Your task to perform on an android device: change the clock style Image 0: 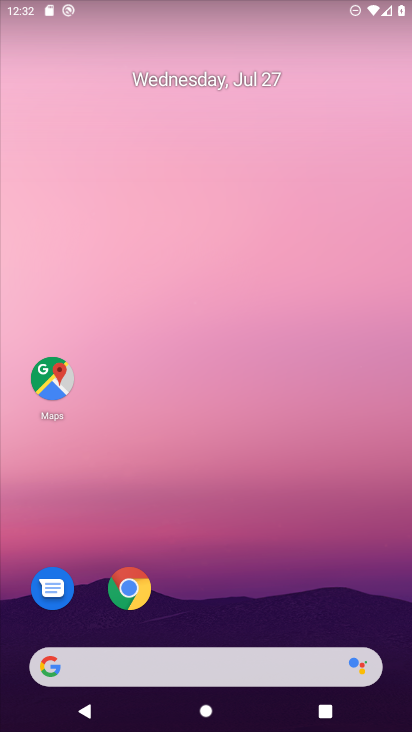
Step 0: drag from (96, 594) to (153, 440)
Your task to perform on an android device: change the clock style Image 1: 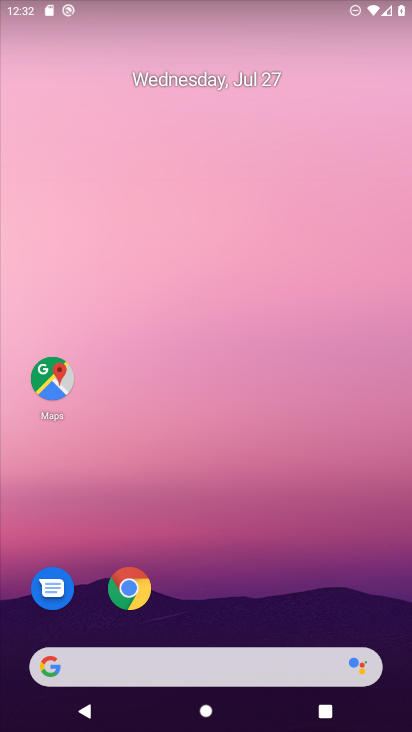
Step 1: drag from (42, 691) to (216, 115)
Your task to perform on an android device: change the clock style Image 2: 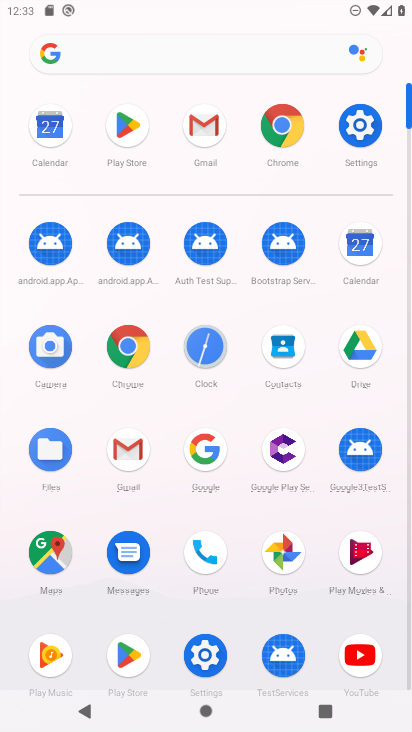
Step 2: click (203, 363)
Your task to perform on an android device: change the clock style Image 3: 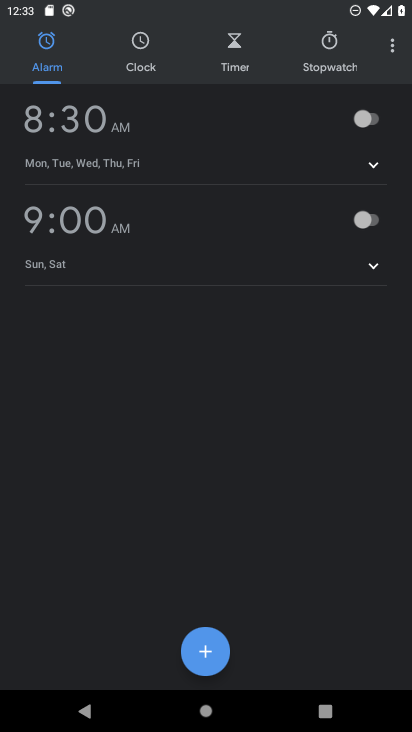
Step 3: click (144, 54)
Your task to perform on an android device: change the clock style Image 4: 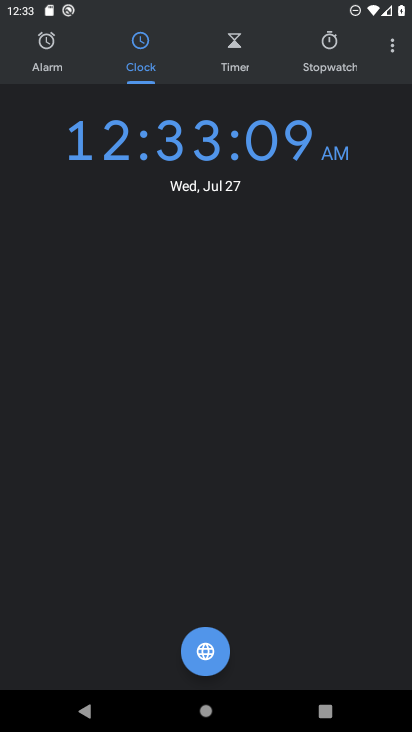
Step 4: click (391, 44)
Your task to perform on an android device: change the clock style Image 5: 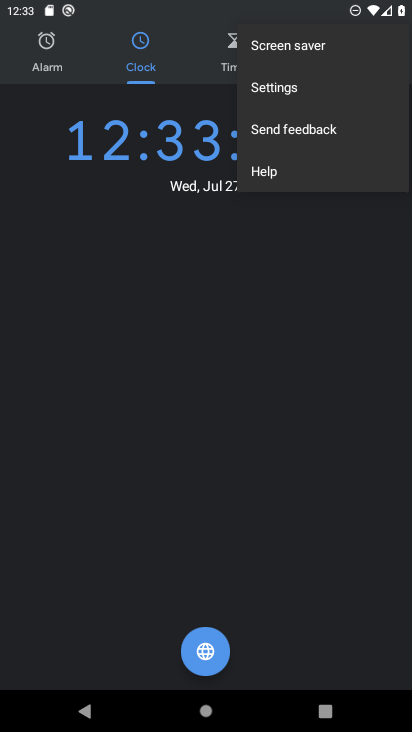
Step 5: click (295, 94)
Your task to perform on an android device: change the clock style Image 6: 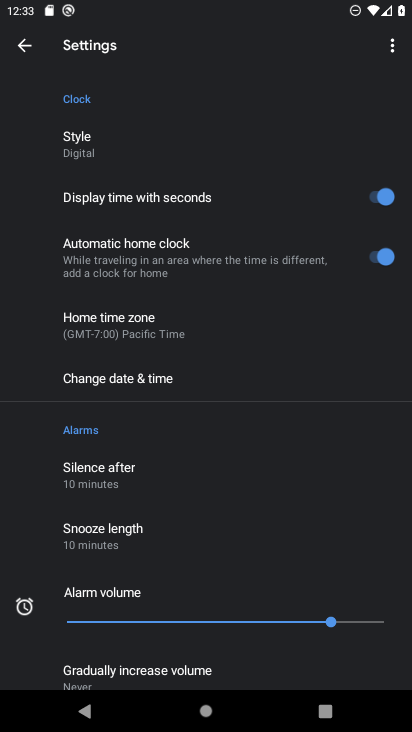
Step 6: click (106, 141)
Your task to perform on an android device: change the clock style Image 7: 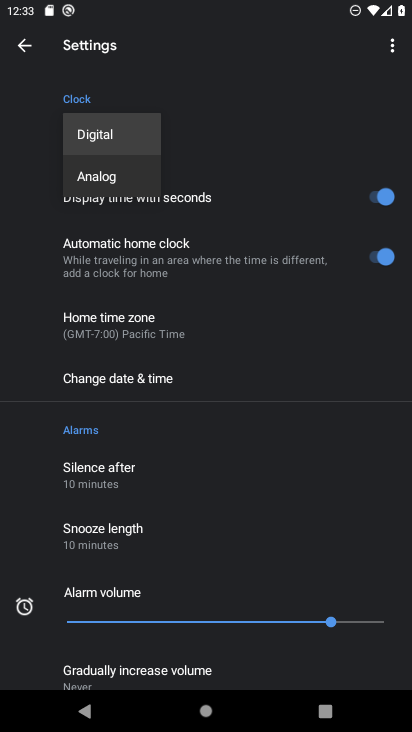
Step 7: click (108, 171)
Your task to perform on an android device: change the clock style Image 8: 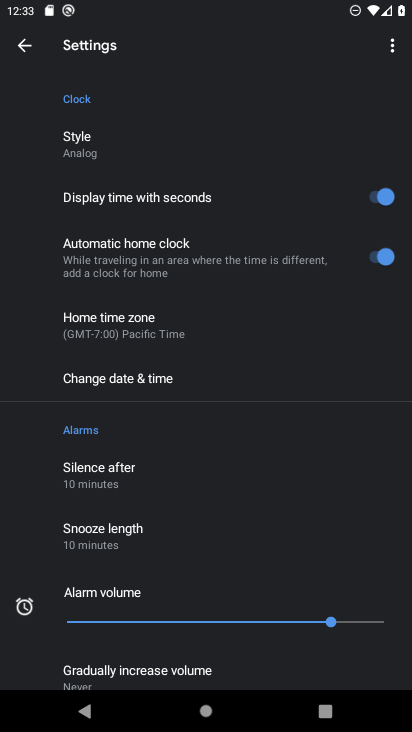
Step 8: task complete